Your task to perform on an android device: When is my next meeting? Image 0: 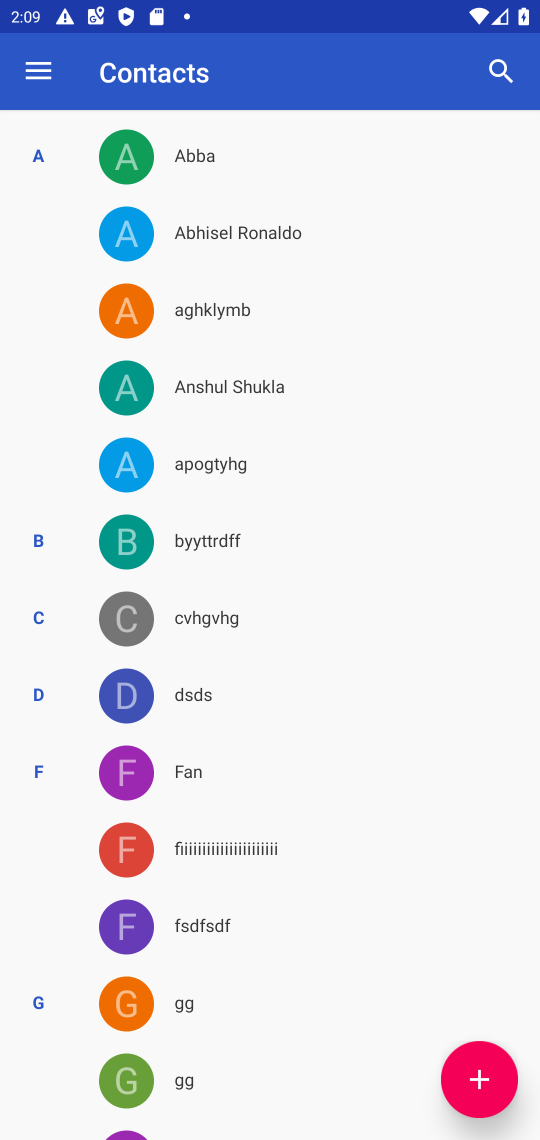
Step 0: press home button
Your task to perform on an android device: When is my next meeting? Image 1: 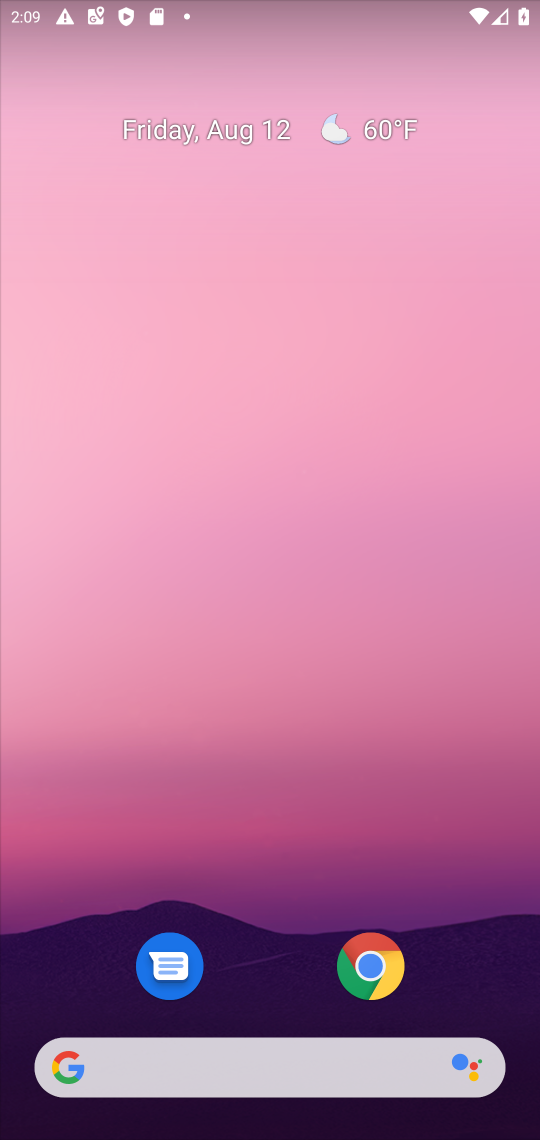
Step 1: click (179, 124)
Your task to perform on an android device: When is my next meeting? Image 2: 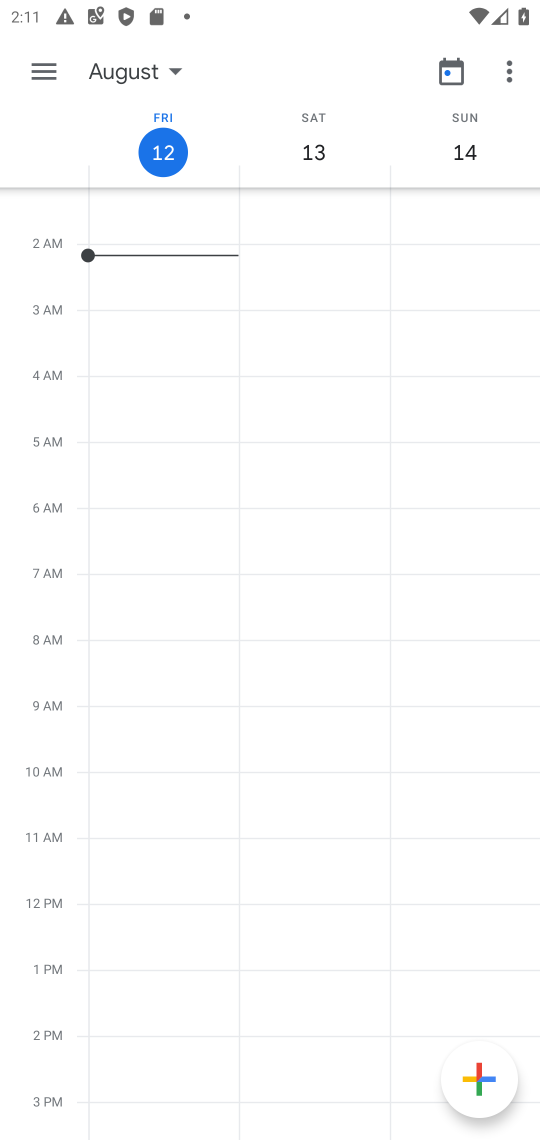
Step 2: task complete